Your task to perform on an android device: toggle show notifications on the lock screen Image 0: 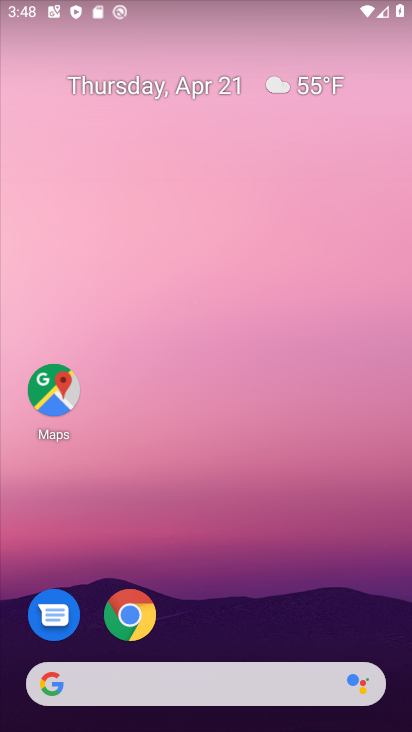
Step 0: drag from (283, 462) to (160, 22)
Your task to perform on an android device: toggle show notifications on the lock screen Image 1: 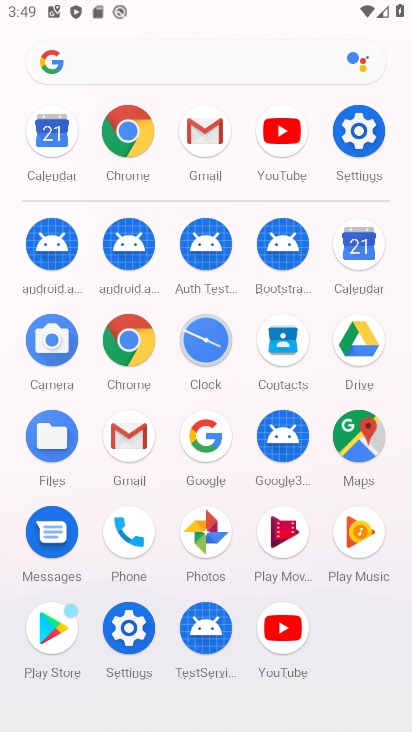
Step 1: drag from (13, 495) to (0, 280)
Your task to perform on an android device: toggle show notifications on the lock screen Image 2: 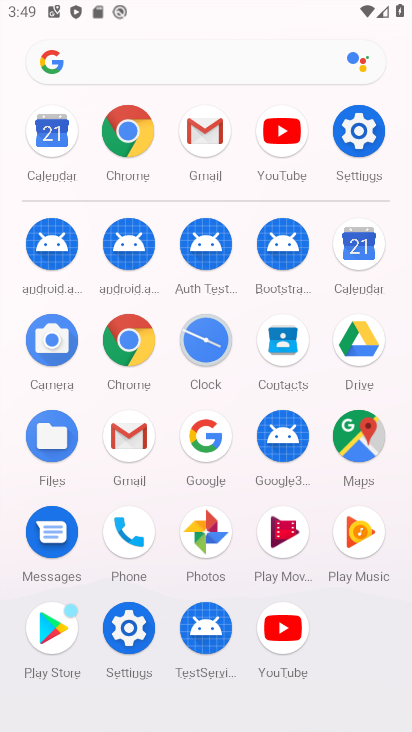
Step 2: click (128, 625)
Your task to perform on an android device: toggle show notifications on the lock screen Image 3: 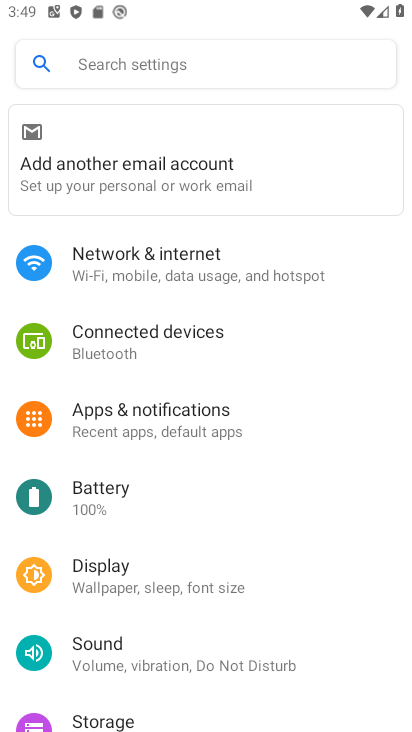
Step 3: drag from (341, 463) to (328, 242)
Your task to perform on an android device: toggle show notifications on the lock screen Image 4: 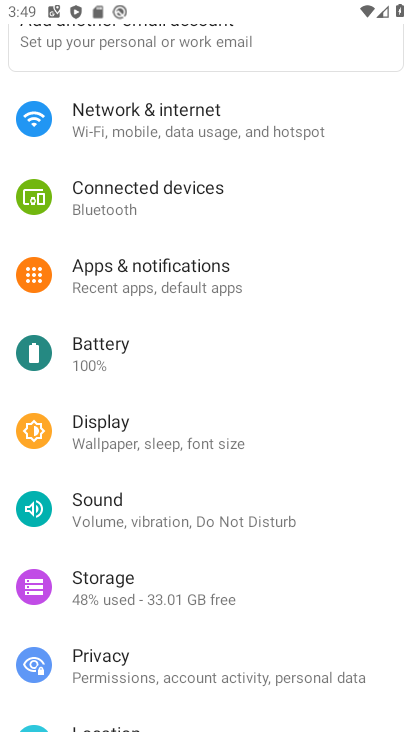
Step 4: click (240, 263)
Your task to perform on an android device: toggle show notifications on the lock screen Image 5: 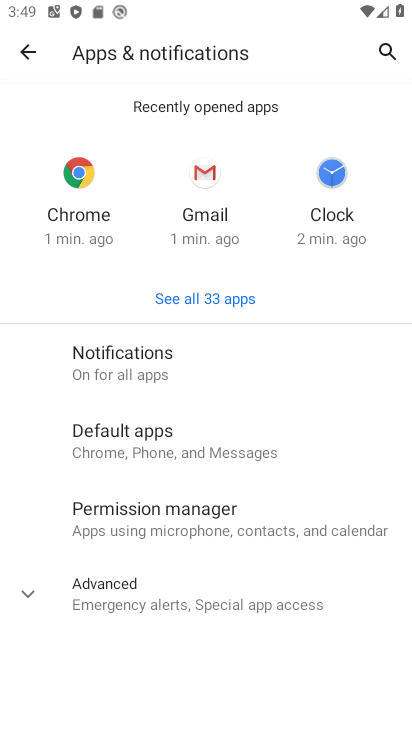
Step 5: click (36, 593)
Your task to perform on an android device: toggle show notifications on the lock screen Image 6: 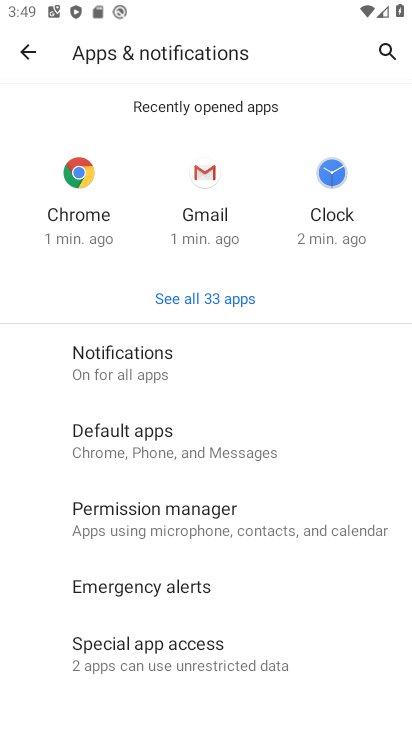
Step 6: drag from (339, 565) to (304, 245)
Your task to perform on an android device: toggle show notifications on the lock screen Image 7: 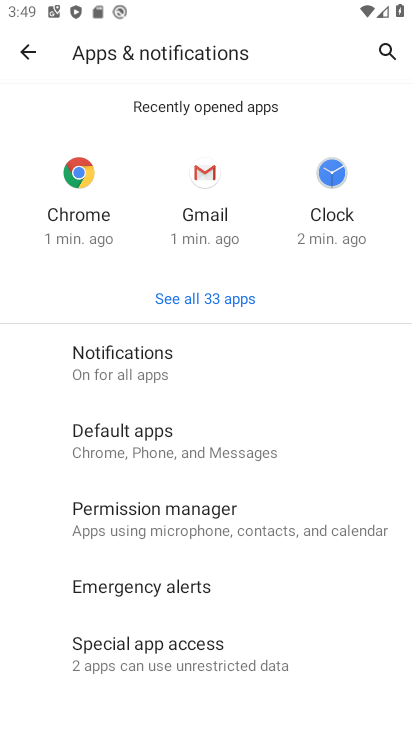
Step 7: click (206, 361)
Your task to perform on an android device: toggle show notifications on the lock screen Image 8: 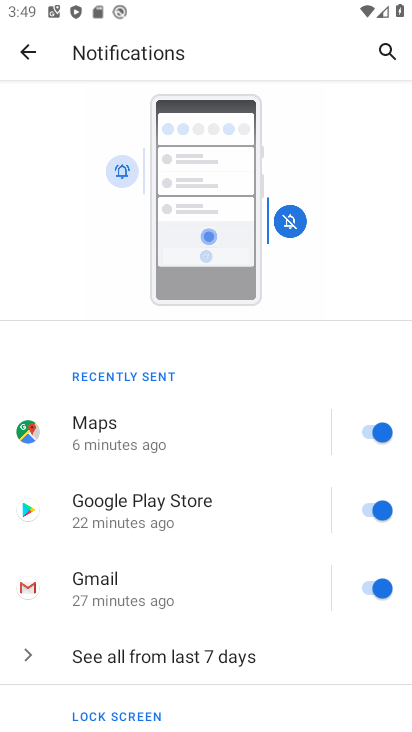
Step 8: drag from (252, 529) to (235, 229)
Your task to perform on an android device: toggle show notifications on the lock screen Image 9: 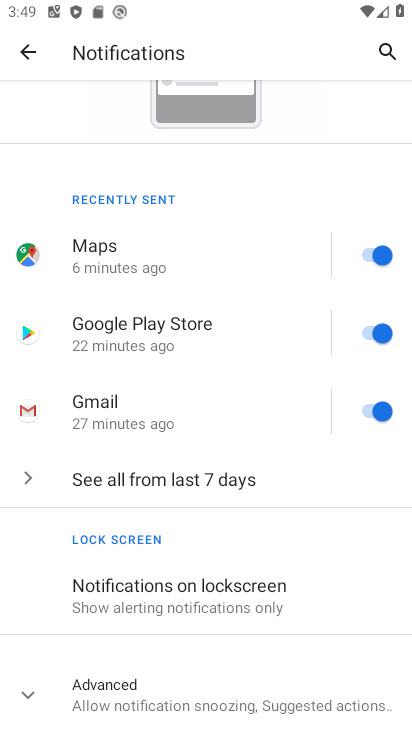
Step 9: click (204, 580)
Your task to perform on an android device: toggle show notifications on the lock screen Image 10: 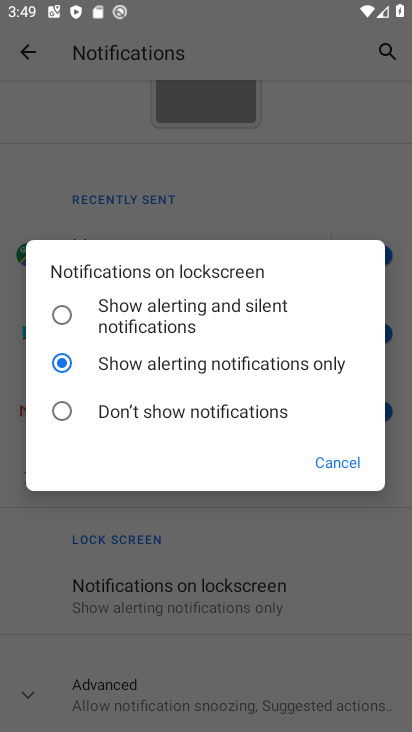
Step 10: click (117, 319)
Your task to perform on an android device: toggle show notifications on the lock screen Image 11: 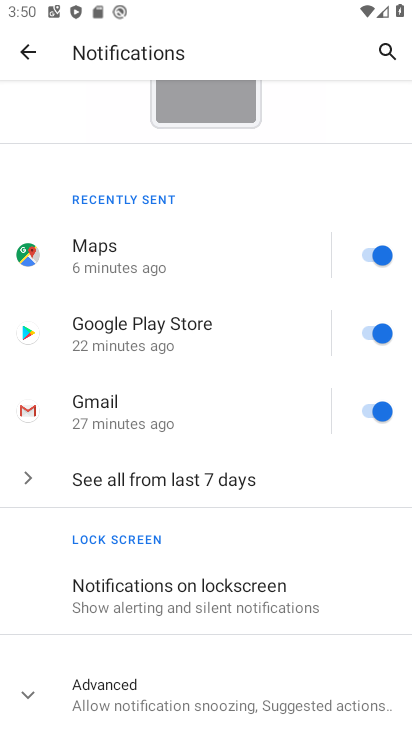
Step 11: task complete